Your task to perform on an android device: Find coffee shops on Maps Image 0: 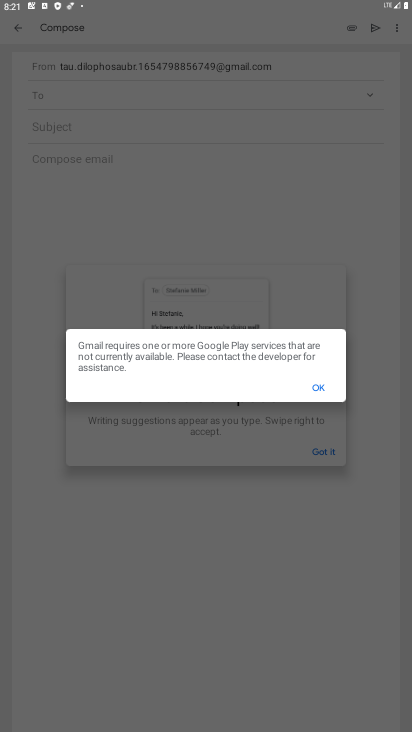
Step 0: press home button
Your task to perform on an android device: Find coffee shops on Maps Image 1: 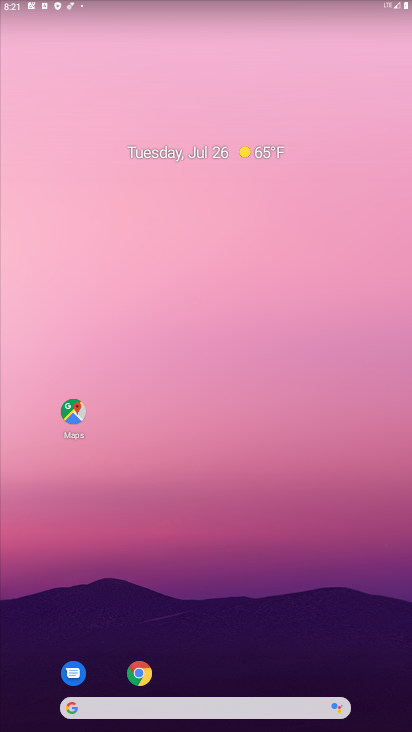
Step 1: click (61, 402)
Your task to perform on an android device: Find coffee shops on Maps Image 2: 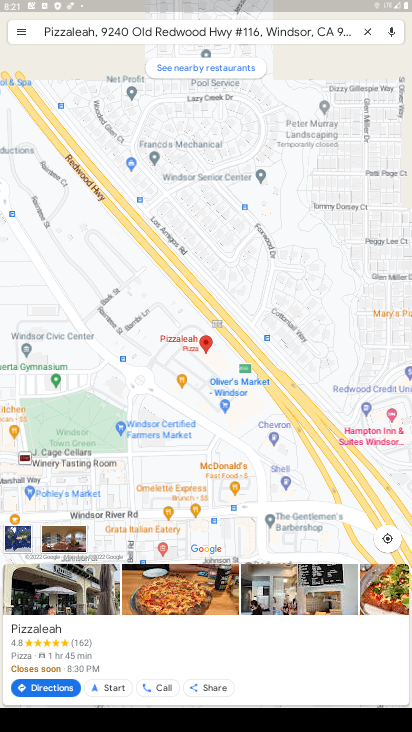
Step 2: click (362, 25)
Your task to perform on an android device: Find coffee shops on Maps Image 3: 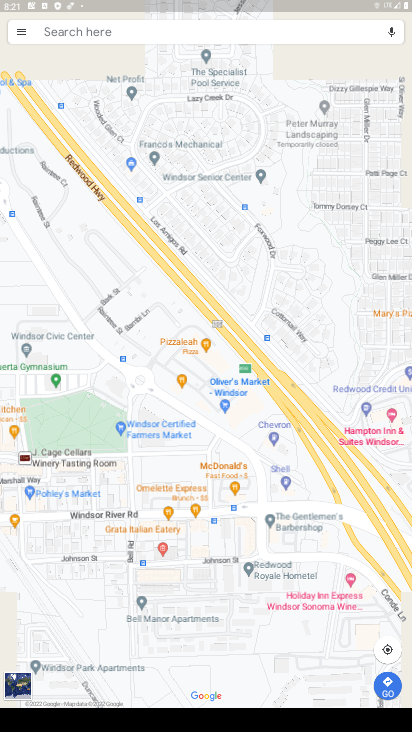
Step 3: click (238, 32)
Your task to perform on an android device: Find coffee shops on Maps Image 4: 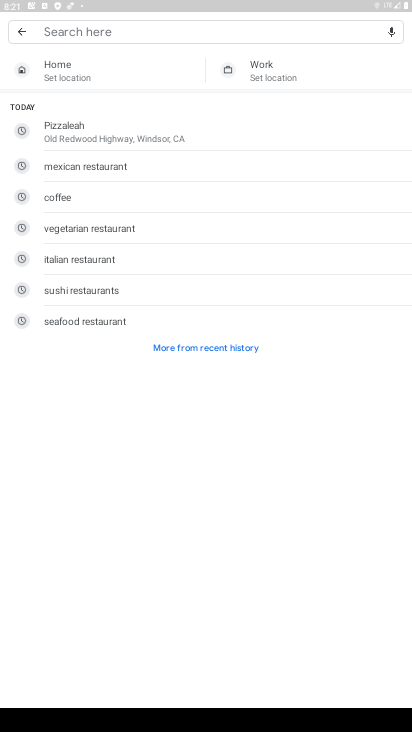
Step 4: type "coffee shops"
Your task to perform on an android device: Find coffee shops on Maps Image 5: 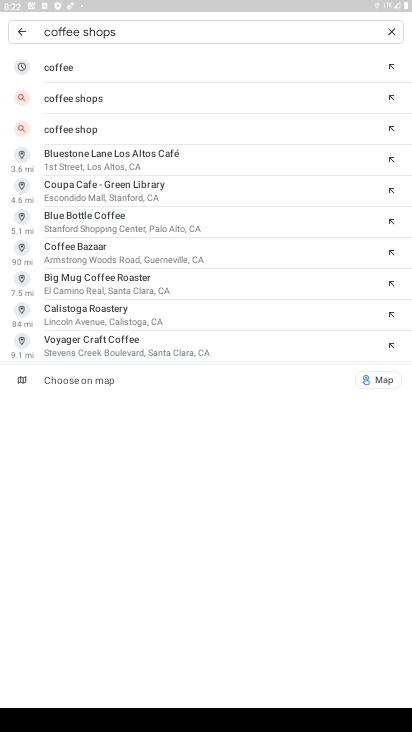
Step 5: click (165, 98)
Your task to perform on an android device: Find coffee shops on Maps Image 6: 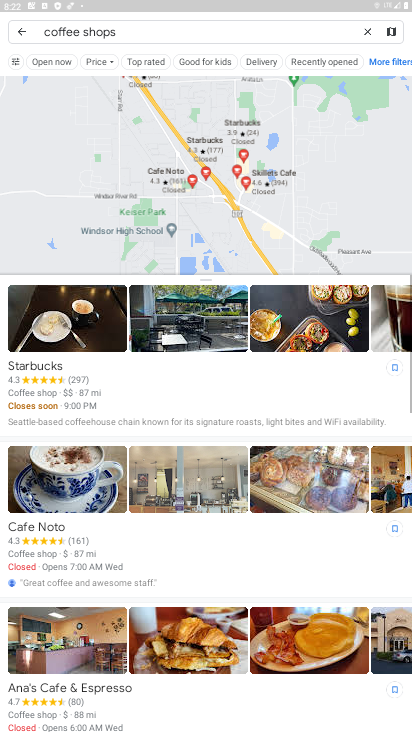
Step 6: task complete